Your task to perform on an android device: Open calendar and show me the third week of next month Image 0: 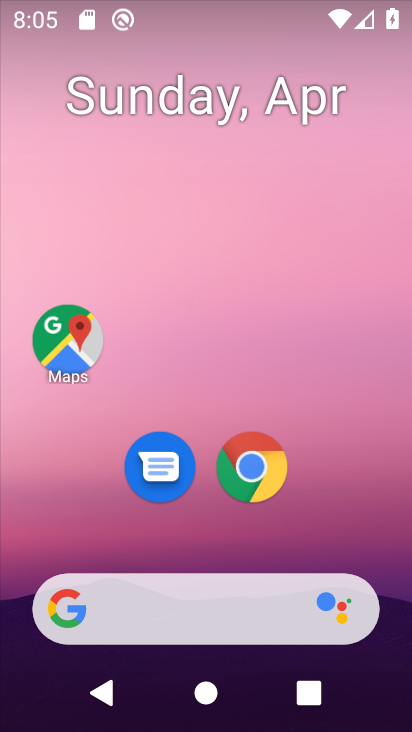
Step 0: drag from (358, 533) to (286, 7)
Your task to perform on an android device: Open calendar and show me the third week of next month Image 1: 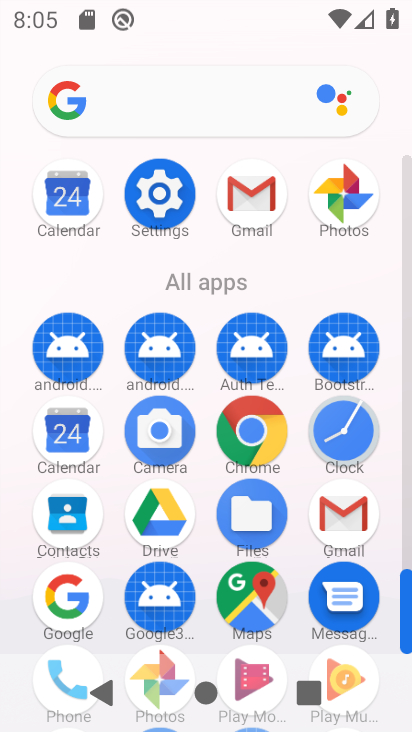
Step 1: click (59, 183)
Your task to perform on an android device: Open calendar and show me the third week of next month Image 2: 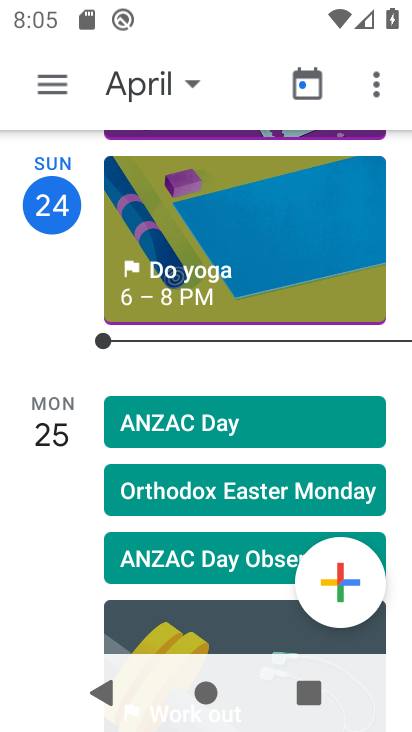
Step 2: click (152, 77)
Your task to perform on an android device: Open calendar and show me the third week of next month Image 3: 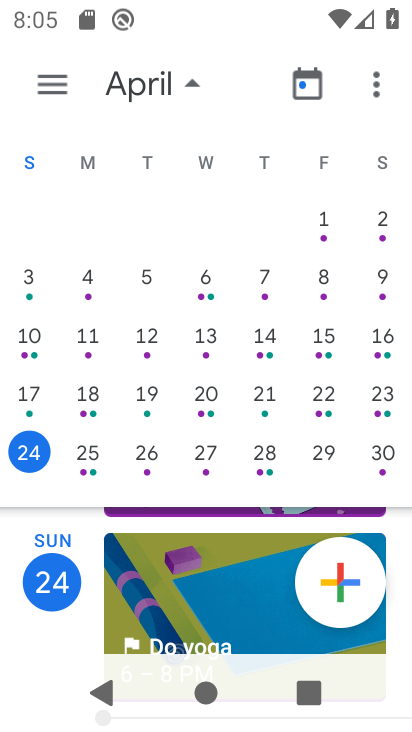
Step 3: drag from (359, 391) to (20, 314)
Your task to perform on an android device: Open calendar and show me the third week of next month Image 4: 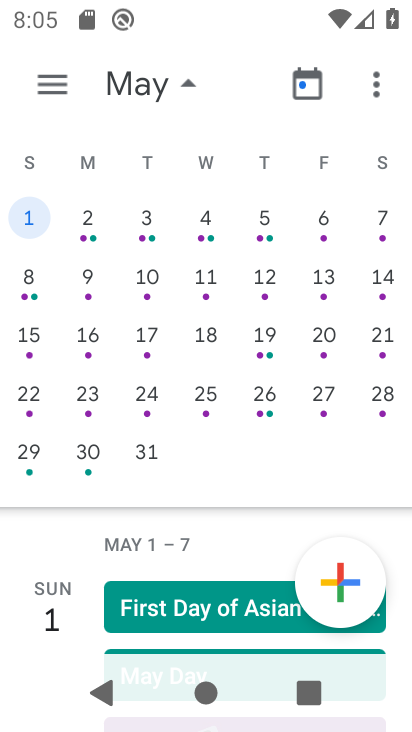
Step 4: click (30, 340)
Your task to perform on an android device: Open calendar and show me the third week of next month Image 5: 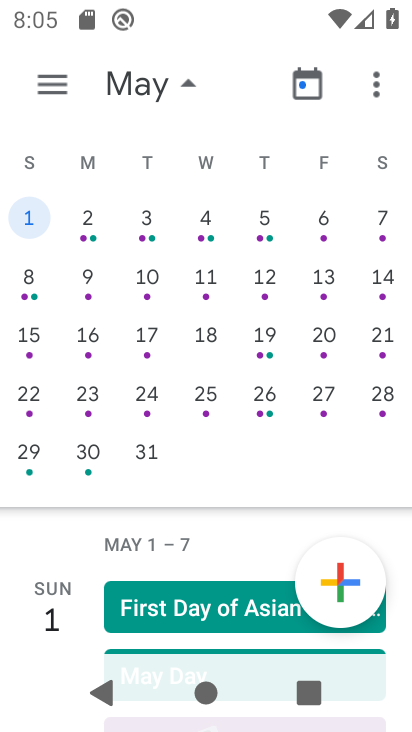
Step 5: click (40, 344)
Your task to perform on an android device: Open calendar and show me the third week of next month Image 6: 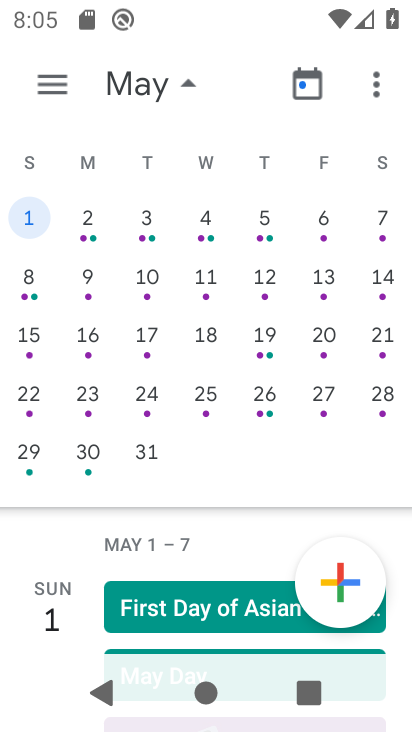
Step 6: click (40, 344)
Your task to perform on an android device: Open calendar and show me the third week of next month Image 7: 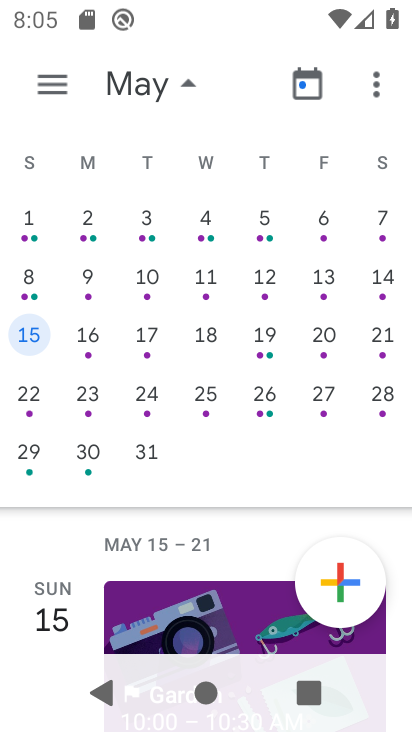
Step 7: task complete